Your task to perform on an android device: Open calendar and show me the second week of next month Image 0: 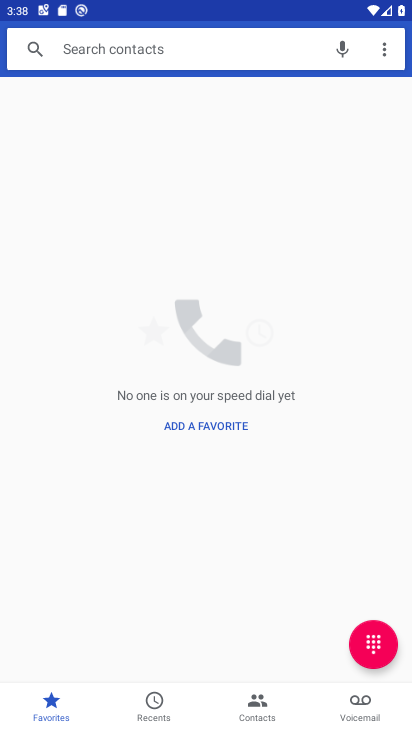
Step 0: press home button
Your task to perform on an android device: Open calendar and show me the second week of next month Image 1: 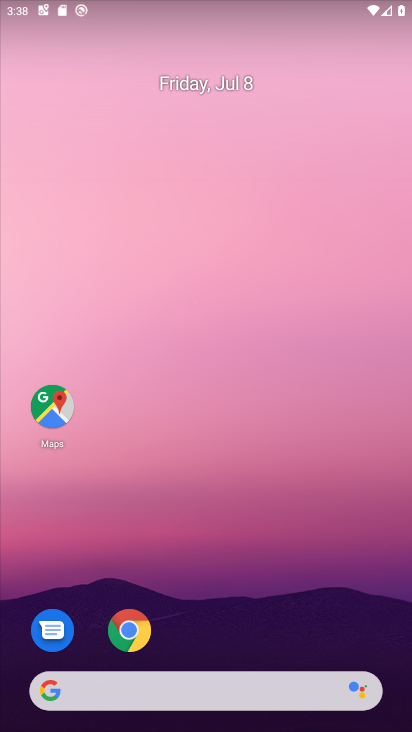
Step 1: drag from (291, 595) to (220, 81)
Your task to perform on an android device: Open calendar and show me the second week of next month Image 2: 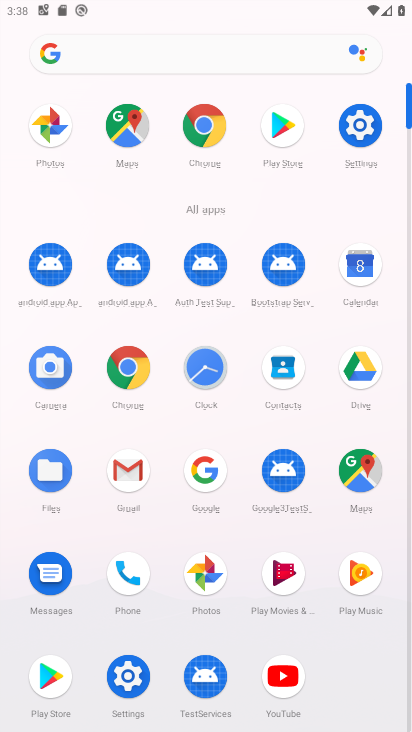
Step 2: click (361, 266)
Your task to perform on an android device: Open calendar and show me the second week of next month Image 3: 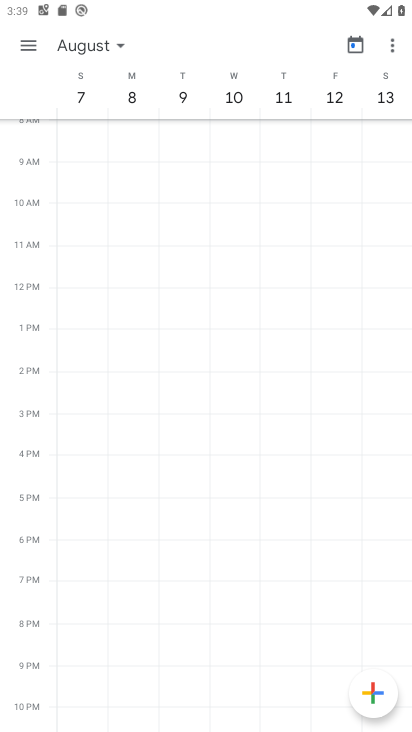
Step 3: task complete